Your task to perform on an android device: Go to Yahoo.com Image 0: 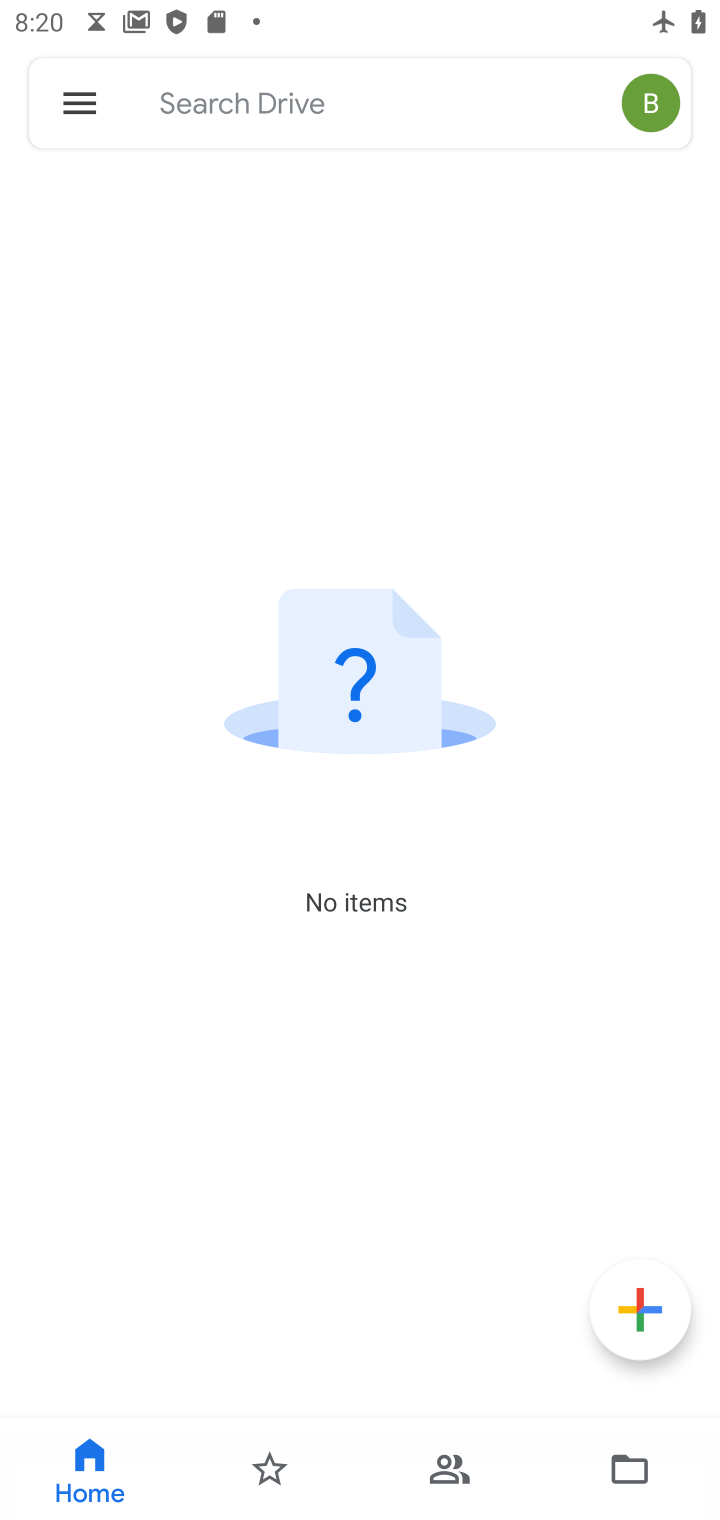
Step 0: press home button
Your task to perform on an android device: Go to Yahoo.com Image 1: 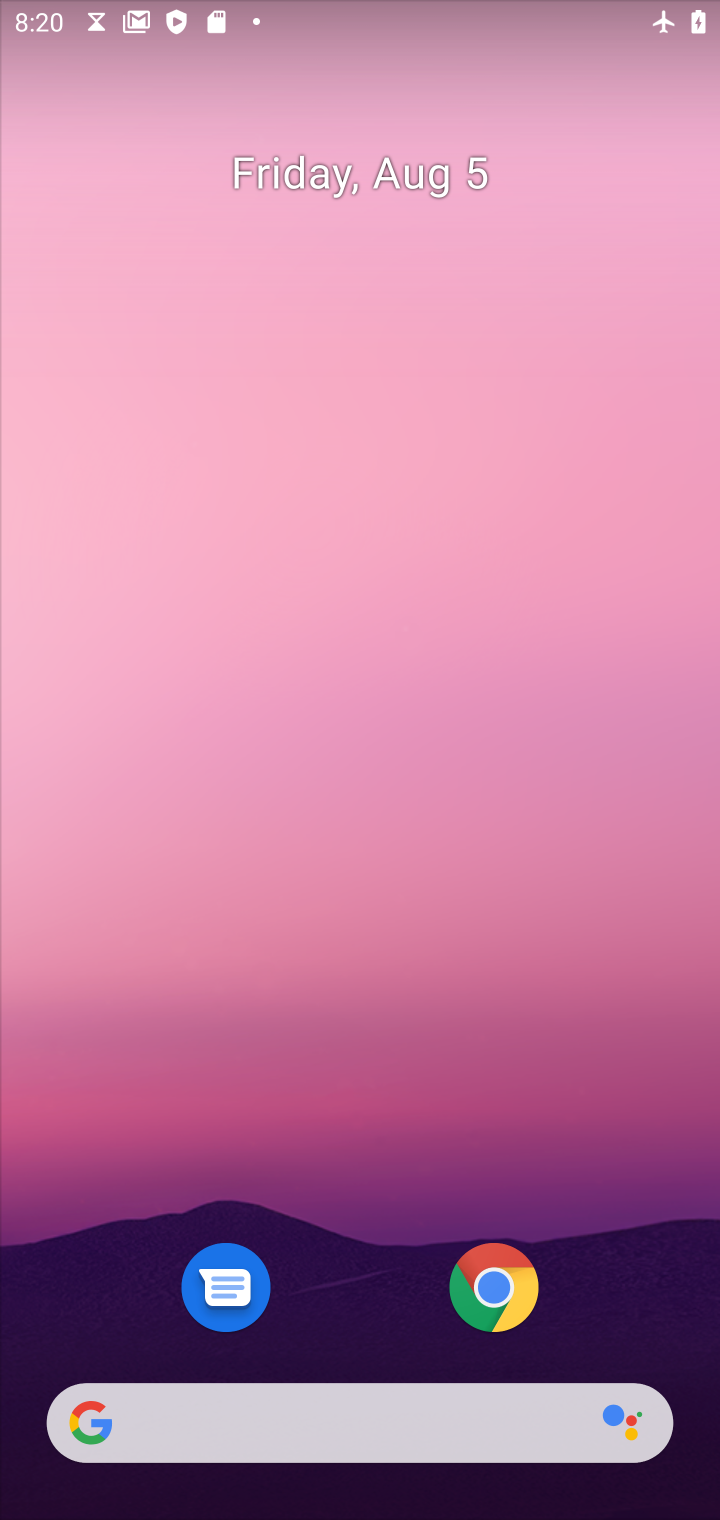
Step 1: drag from (376, 1115) to (278, 425)
Your task to perform on an android device: Go to Yahoo.com Image 2: 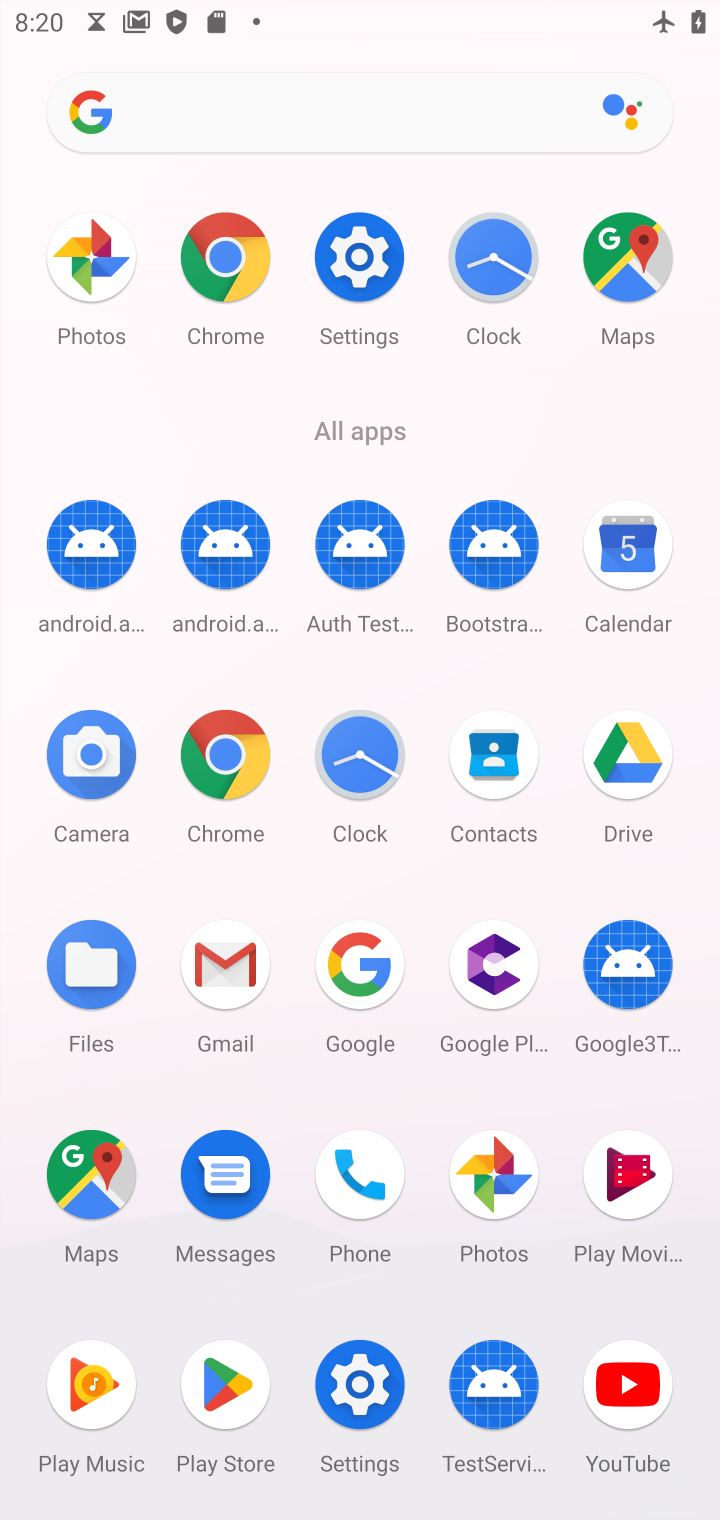
Step 2: click (217, 763)
Your task to perform on an android device: Go to Yahoo.com Image 3: 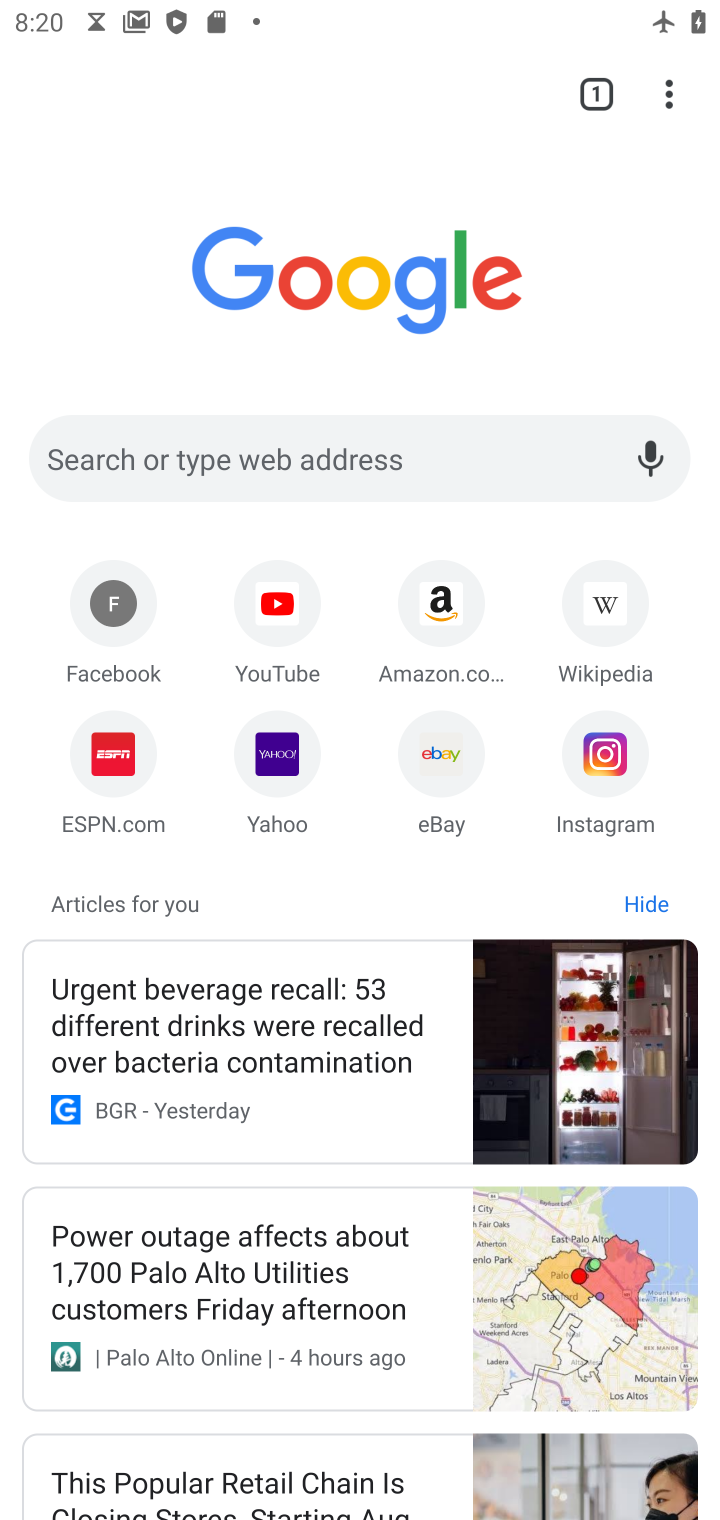
Step 3: click (264, 750)
Your task to perform on an android device: Go to Yahoo.com Image 4: 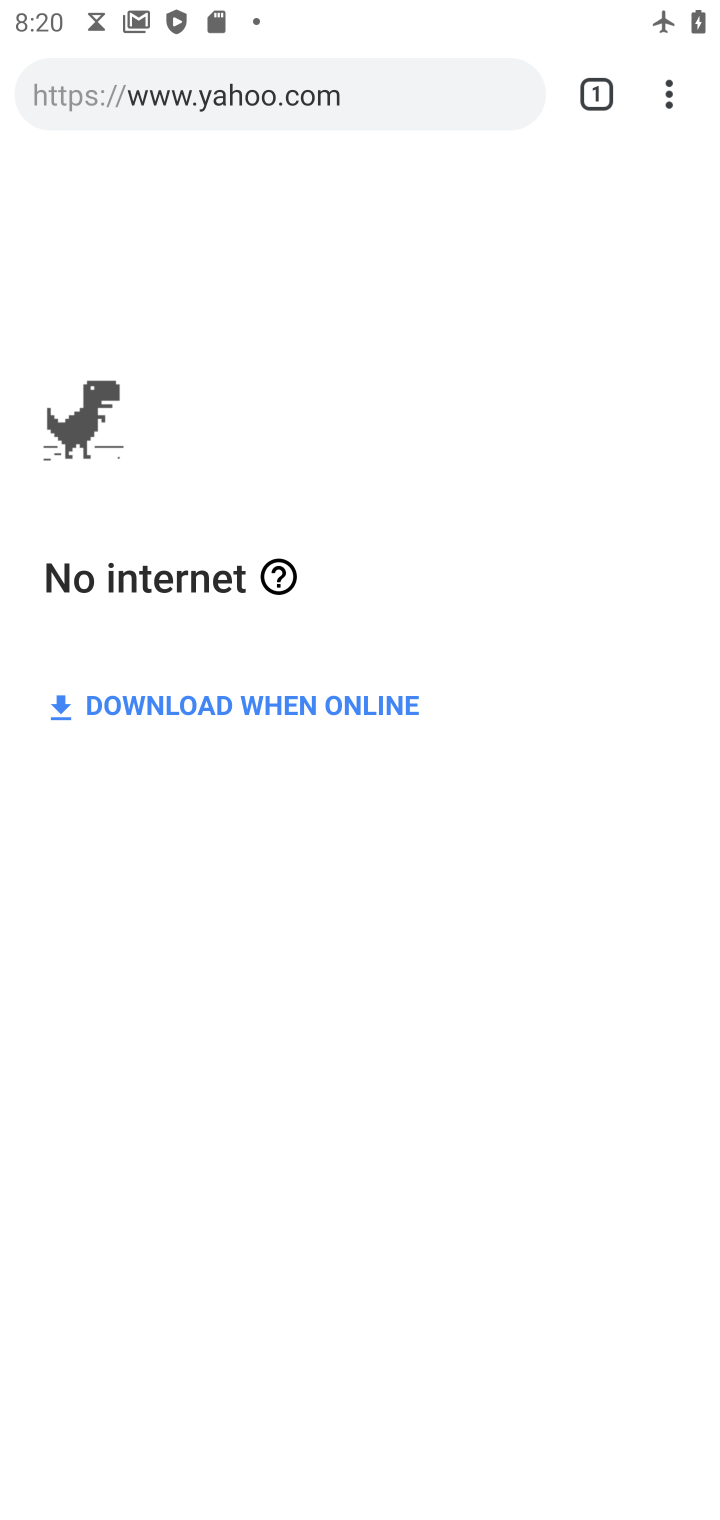
Step 4: task complete